Your task to perform on an android device: allow cookies in the chrome app Image 0: 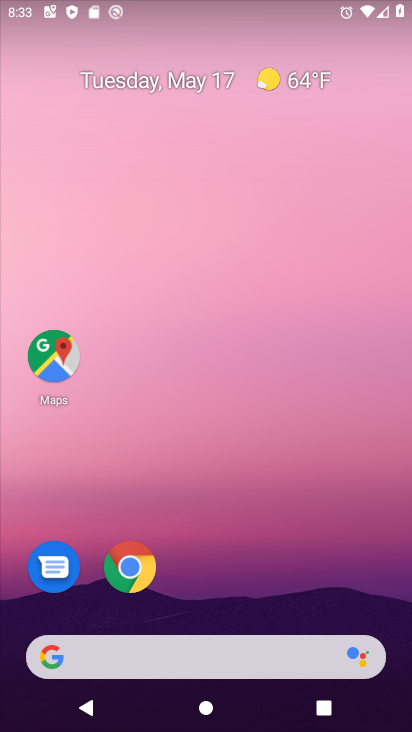
Step 0: drag from (404, 617) to (280, 72)
Your task to perform on an android device: allow cookies in the chrome app Image 1: 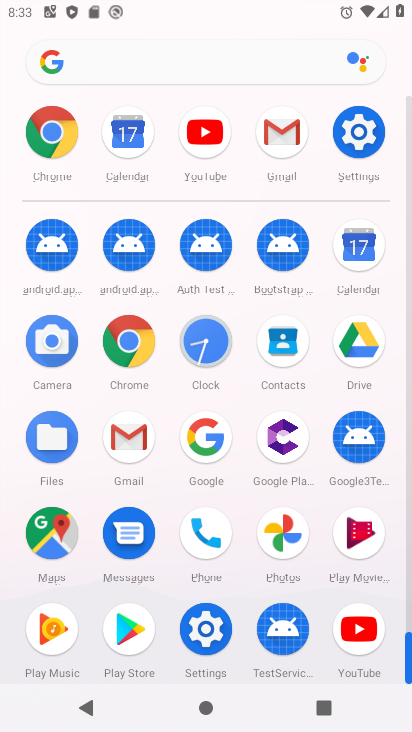
Step 1: click (143, 353)
Your task to perform on an android device: allow cookies in the chrome app Image 2: 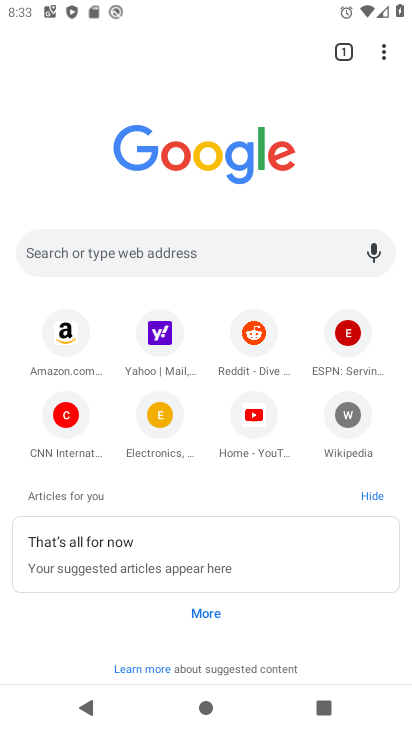
Step 2: click (381, 46)
Your task to perform on an android device: allow cookies in the chrome app Image 3: 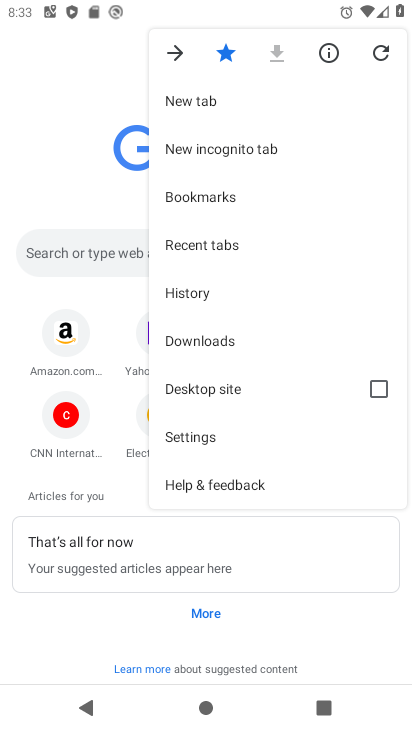
Step 3: click (210, 303)
Your task to perform on an android device: allow cookies in the chrome app Image 4: 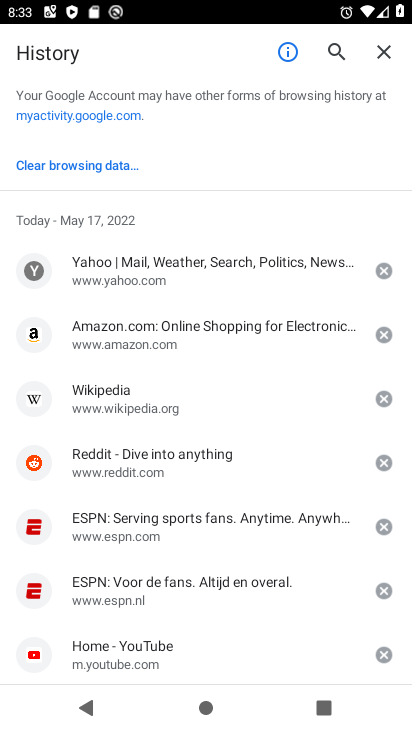
Step 4: click (63, 157)
Your task to perform on an android device: allow cookies in the chrome app Image 5: 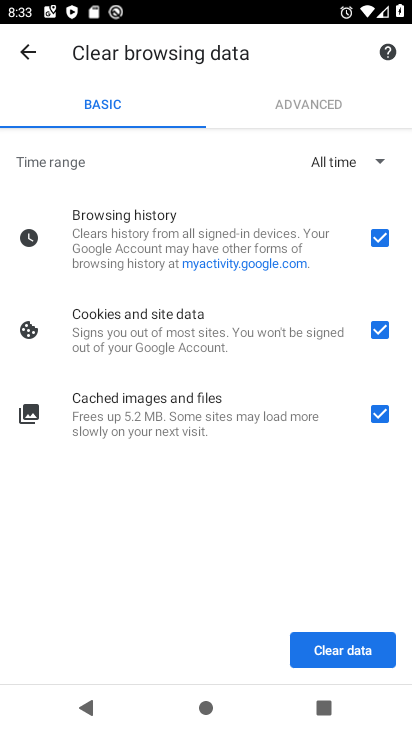
Step 5: task complete